Your task to perform on an android device: Open Youtube and go to the subscriptions tab Image 0: 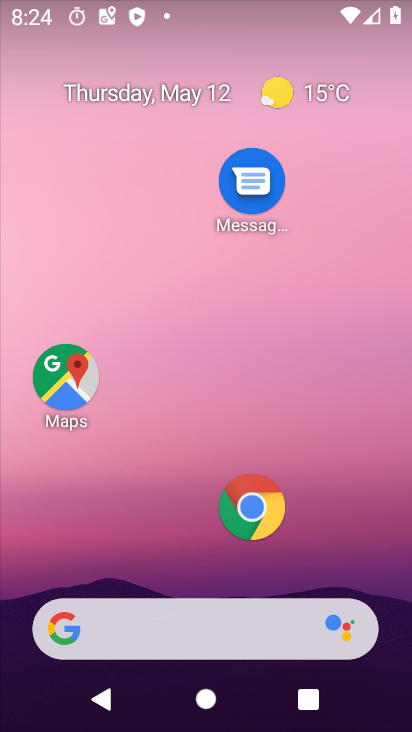
Step 0: drag from (138, 541) to (157, 169)
Your task to perform on an android device: Open Youtube and go to the subscriptions tab Image 1: 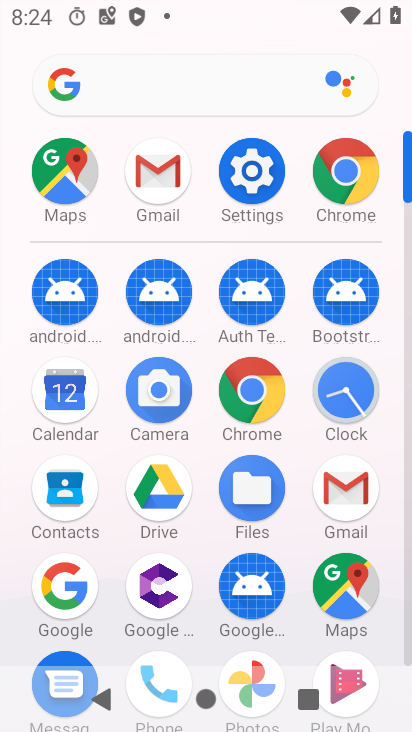
Step 1: drag from (296, 631) to (308, 217)
Your task to perform on an android device: Open Youtube and go to the subscriptions tab Image 2: 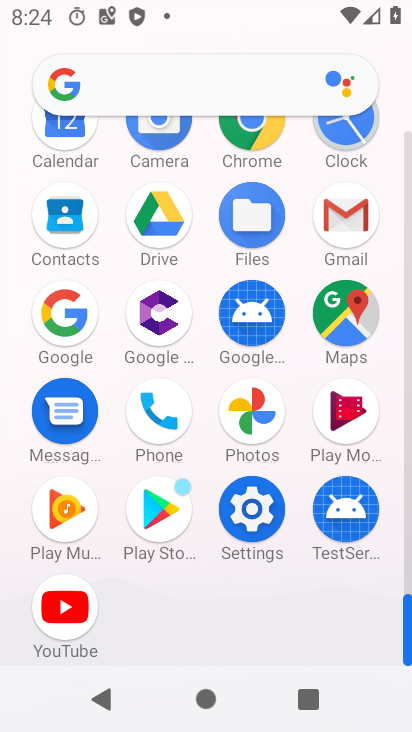
Step 2: click (55, 604)
Your task to perform on an android device: Open Youtube and go to the subscriptions tab Image 3: 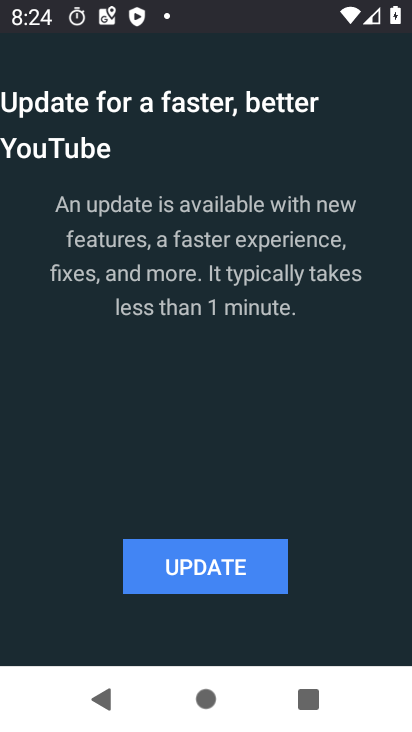
Step 3: click (257, 551)
Your task to perform on an android device: Open Youtube and go to the subscriptions tab Image 4: 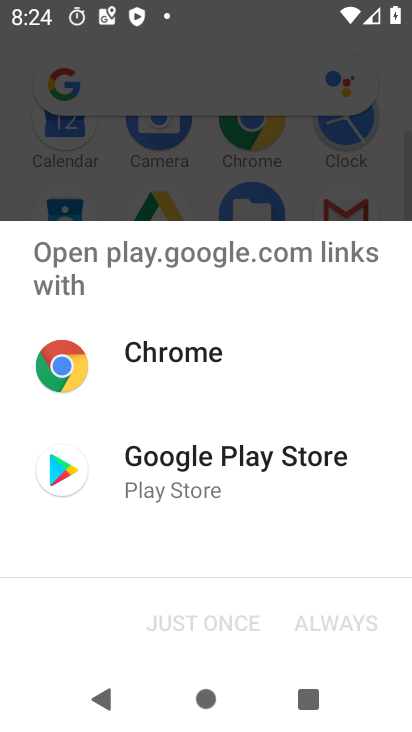
Step 4: click (203, 473)
Your task to perform on an android device: Open Youtube and go to the subscriptions tab Image 5: 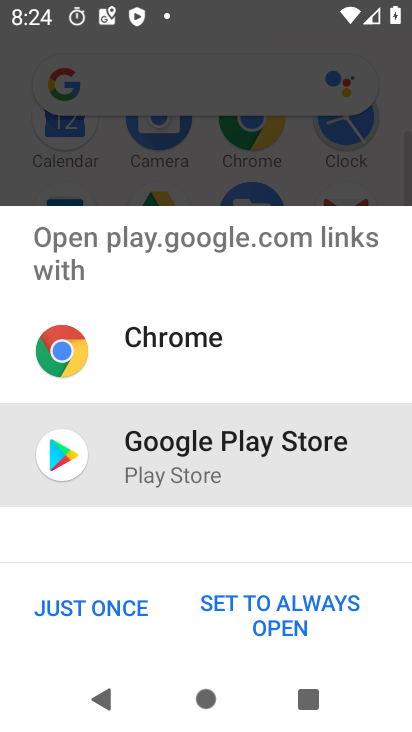
Step 5: click (108, 616)
Your task to perform on an android device: Open Youtube and go to the subscriptions tab Image 6: 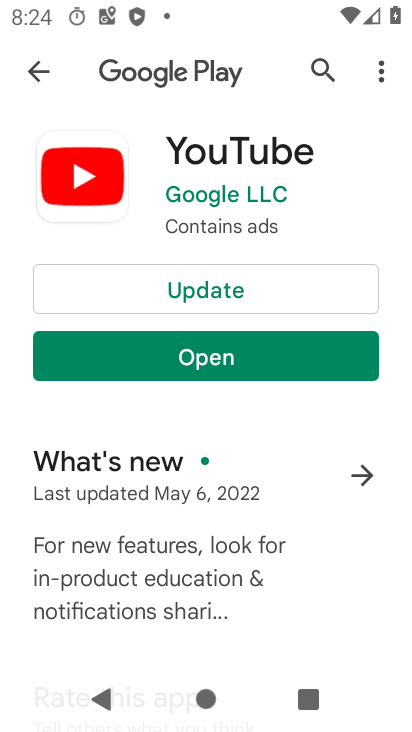
Step 6: click (304, 270)
Your task to perform on an android device: Open Youtube and go to the subscriptions tab Image 7: 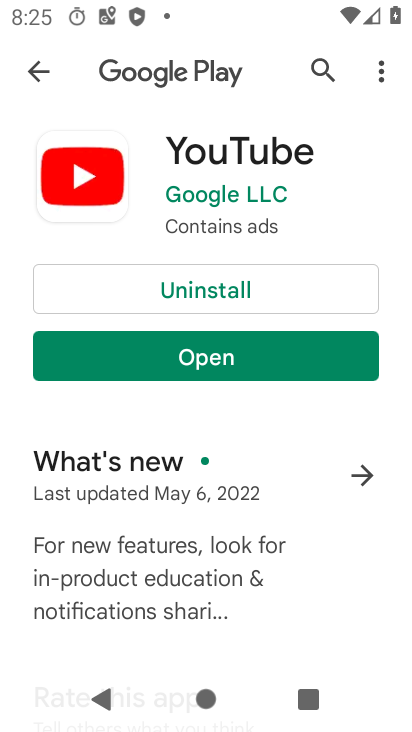
Step 7: click (279, 365)
Your task to perform on an android device: Open Youtube and go to the subscriptions tab Image 8: 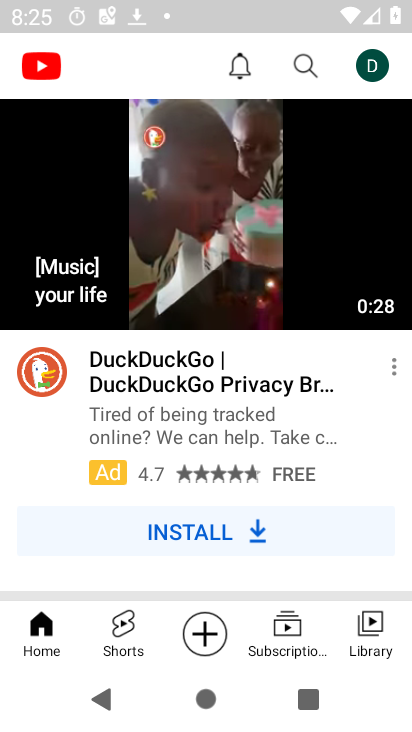
Step 8: click (285, 636)
Your task to perform on an android device: Open Youtube and go to the subscriptions tab Image 9: 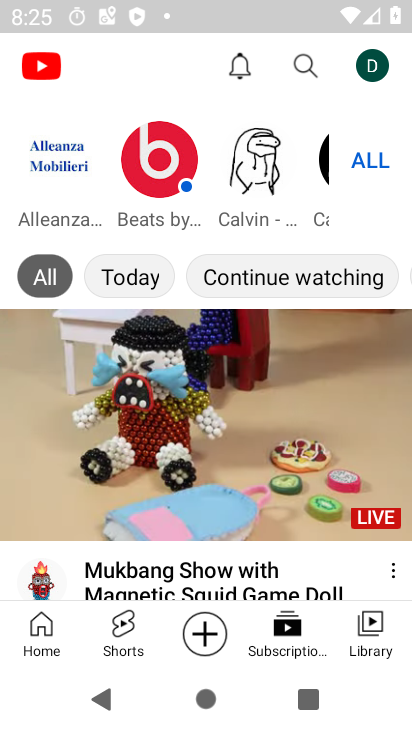
Step 9: task complete